Your task to perform on an android device: Show me recent news Image 0: 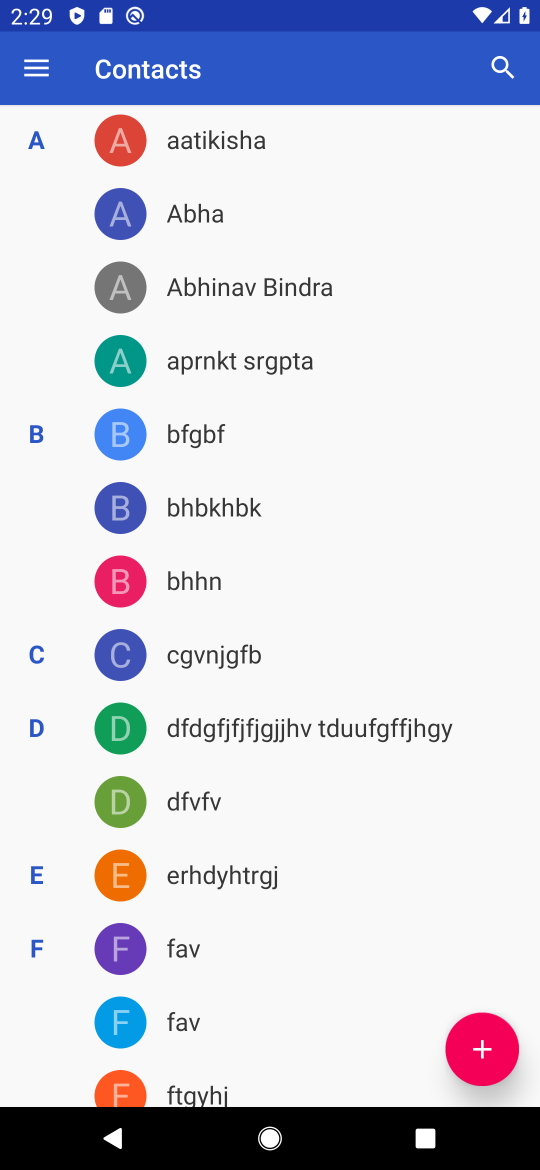
Step 0: press home button
Your task to perform on an android device: Show me recent news Image 1: 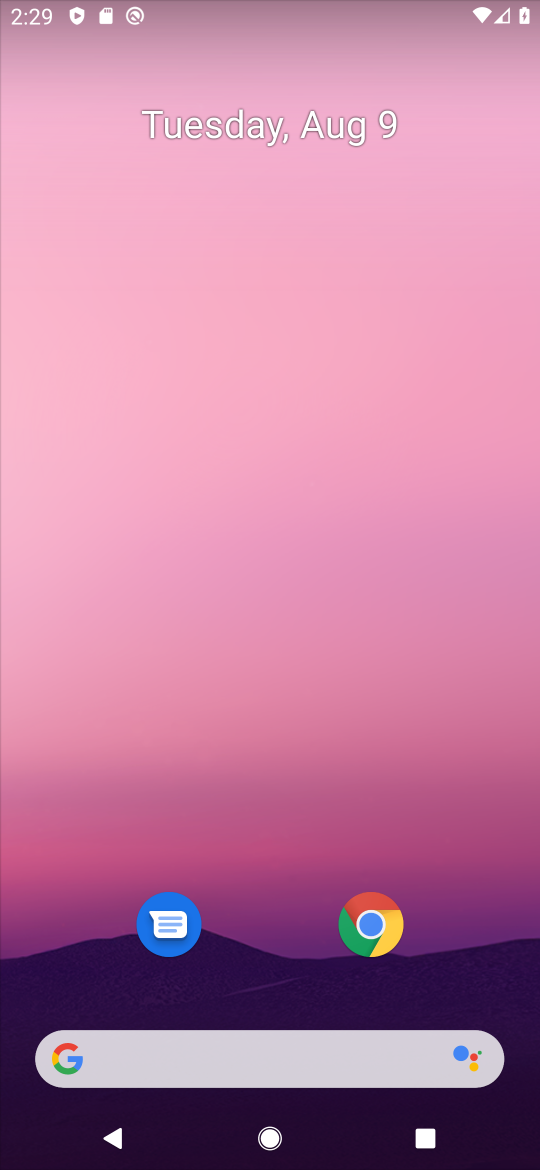
Step 1: drag from (269, 883) to (317, 0)
Your task to perform on an android device: Show me recent news Image 2: 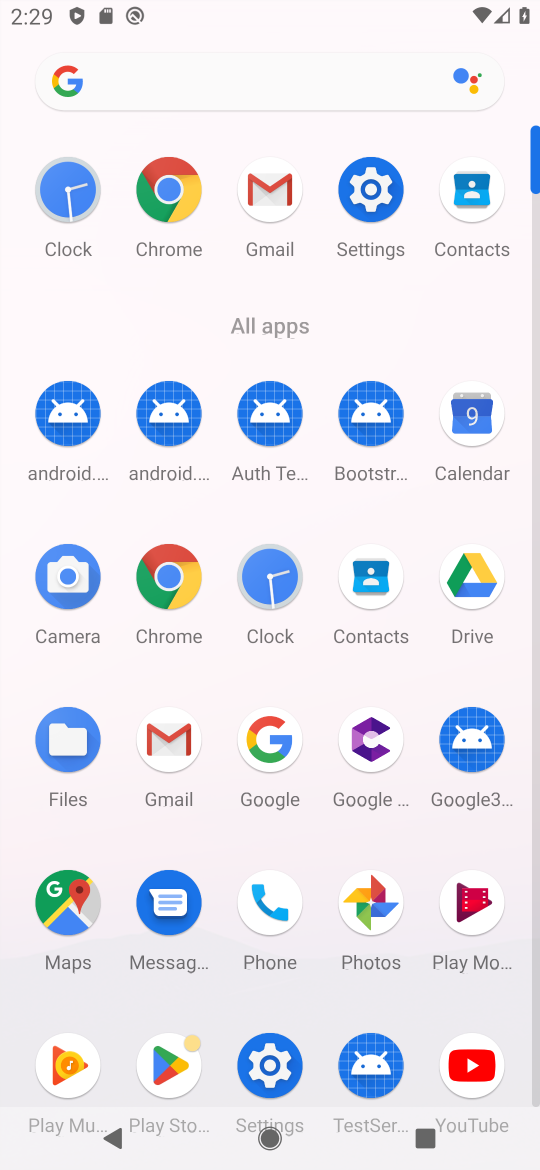
Step 2: press back button
Your task to perform on an android device: Show me recent news Image 3: 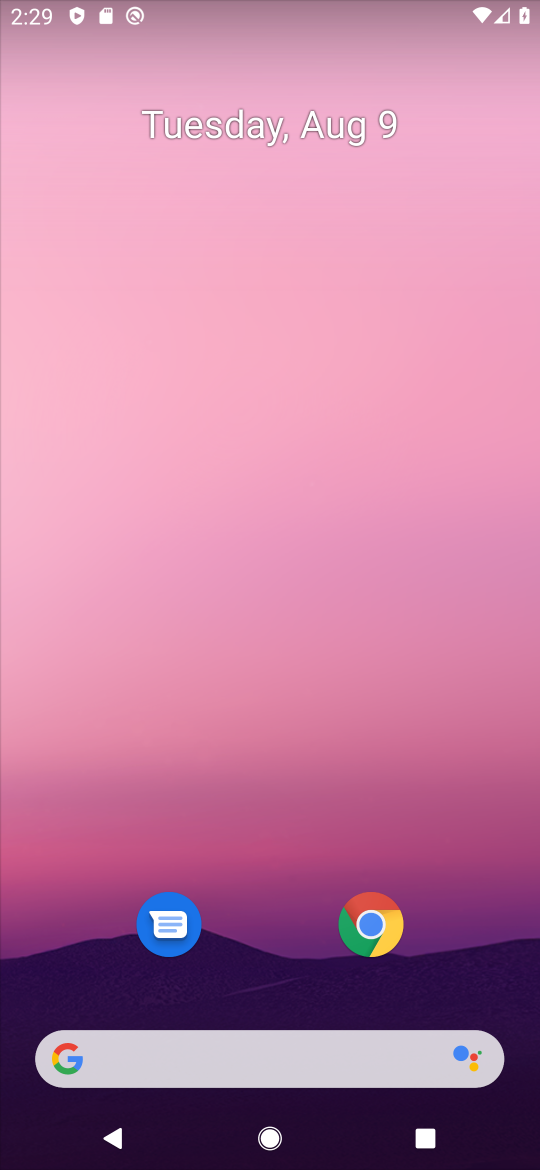
Step 3: click (364, 1056)
Your task to perform on an android device: Show me recent news Image 4: 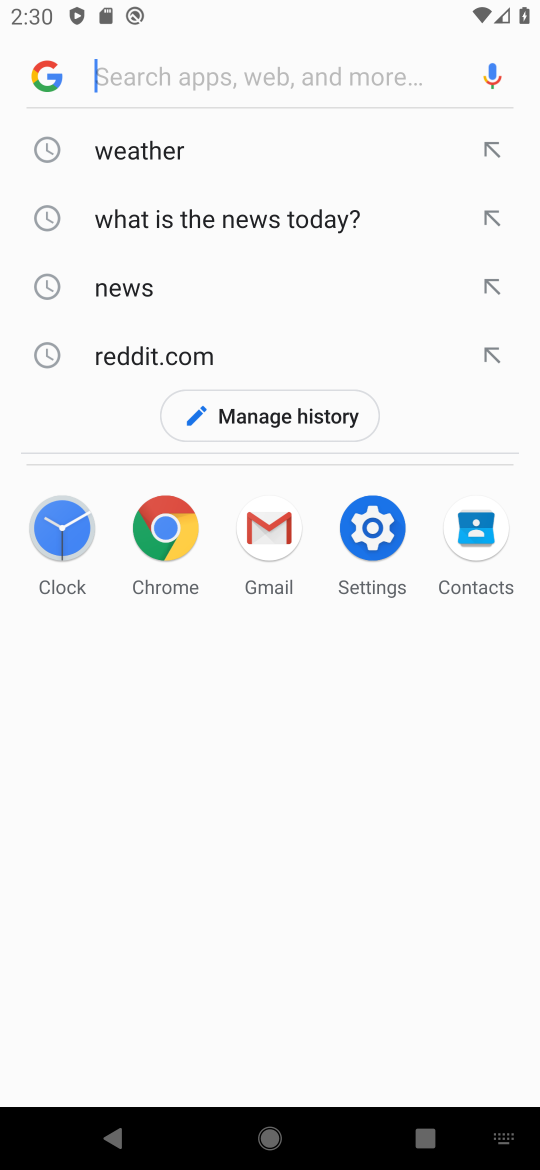
Step 4: click (139, 284)
Your task to perform on an android device: Show me recent news Image 5: 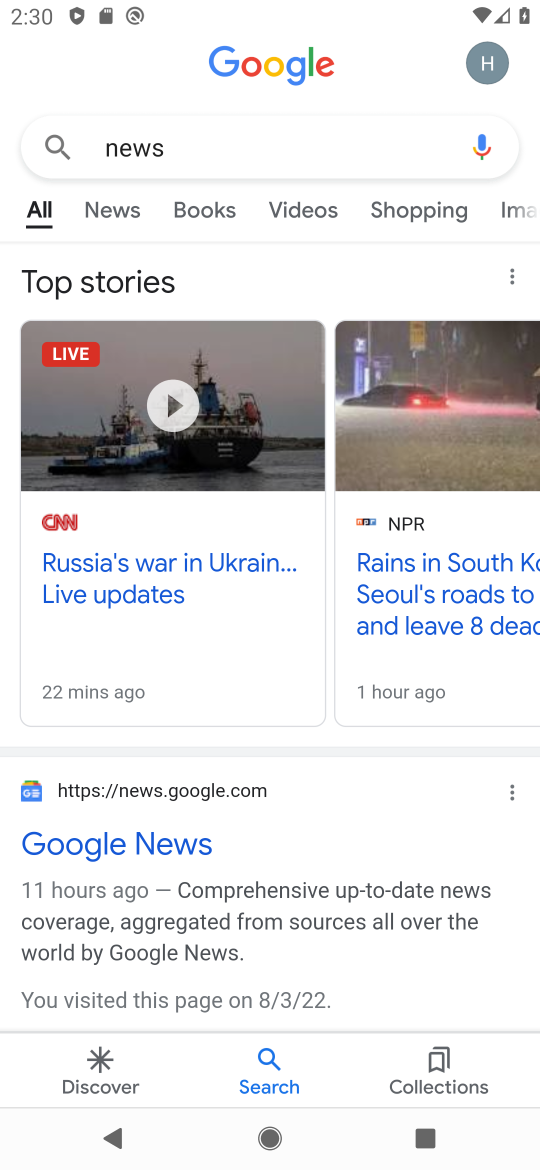
Step 5: click (125, 208)
Your task to perform on an android device: Show me recent news Image 6: 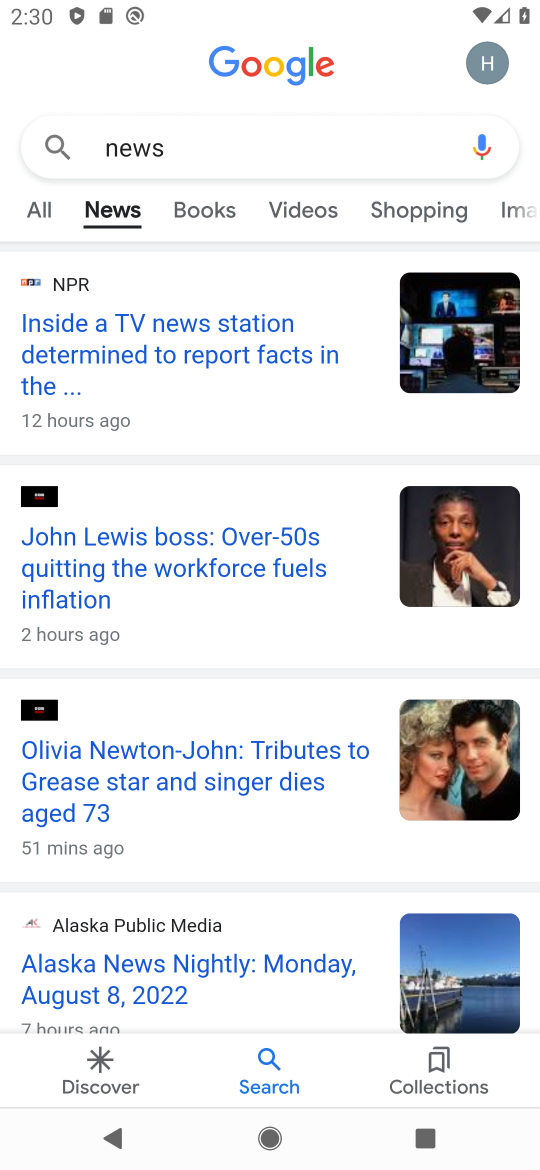
Step 6: task complete